Your task to perform on an android device: allow cookies in the chrome app Image 0: 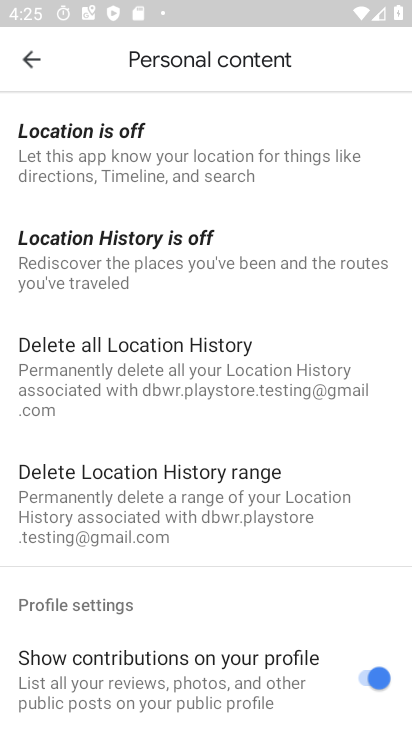
Step 0: press home button
Your task to perform on an android device: allow cookies in the chrome app Image 1: 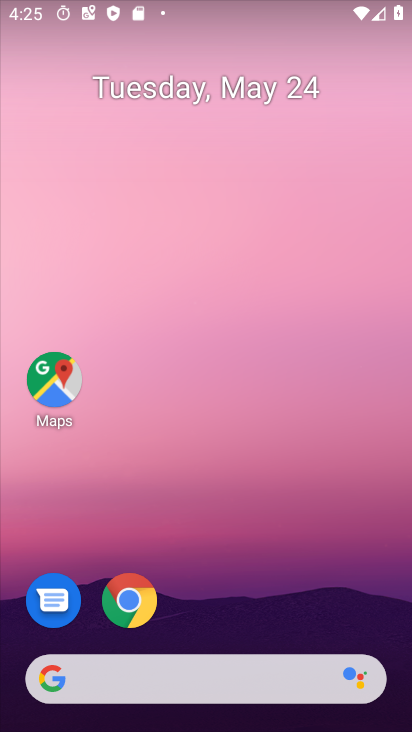
Step 1: click (139, 612)
Your task to perform on an android device: allow cookies in the chrome app Image 2: 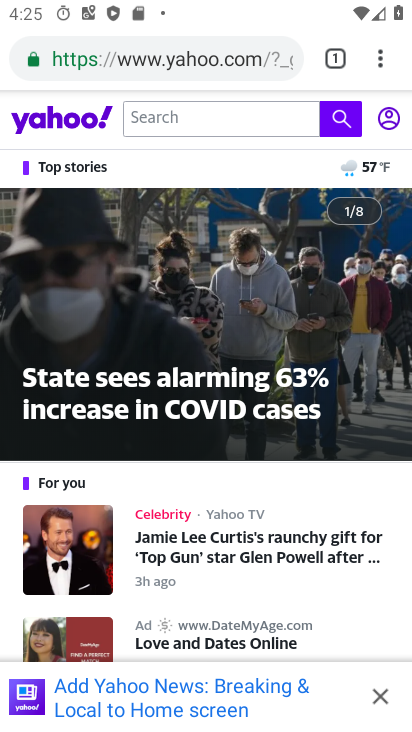
Step 2: click (380, 53)
Your task to perform on an android device: allow cookies in the chrome app Image 3: 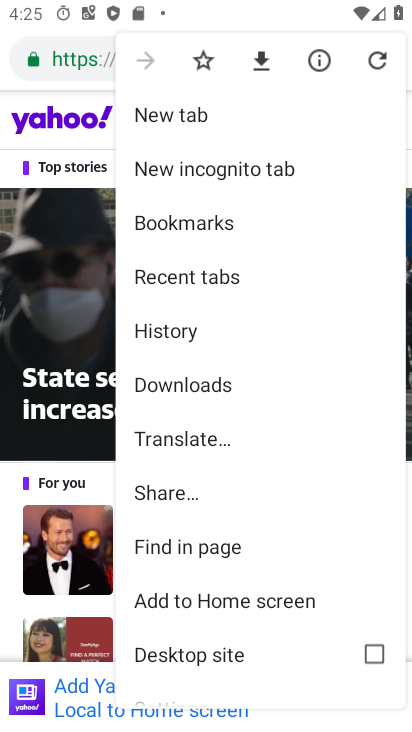
Step 3: drag from (301, 573) to (334, 277)
Your task to perform on an android device: allow cookies in the chrome app Image 4: 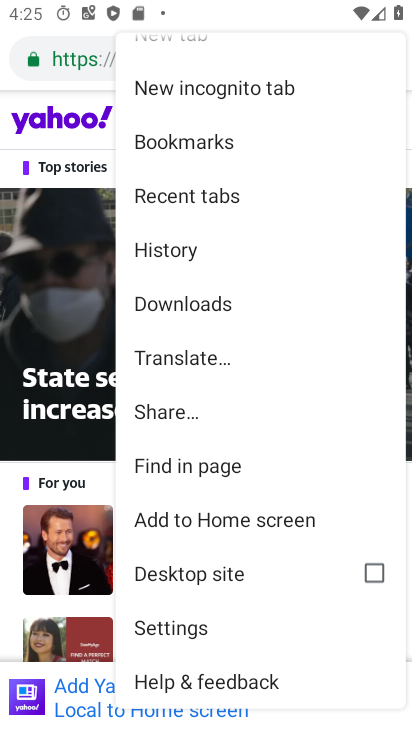
Step 4: click (153, 632)
Your task to perform on an android device: allow cookies in the chrome app Image 5: 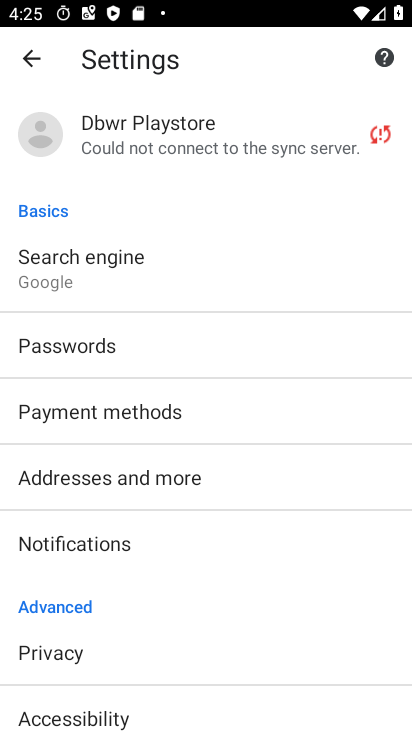
Step 5: drag from (244, 482) to (251, 180)
Your task to perform on an android device: allow cookies in the chrome app Image 6: 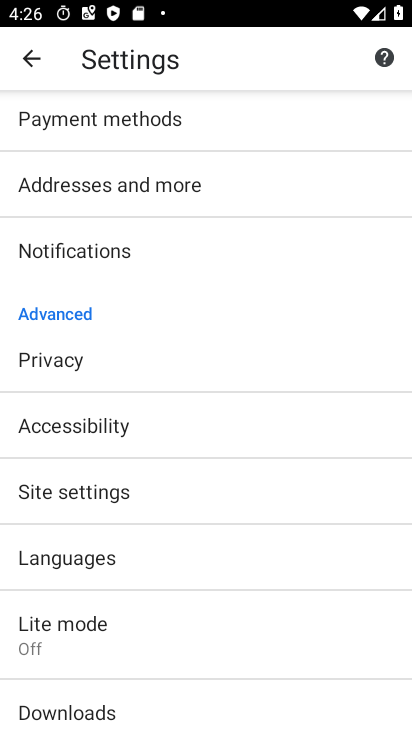
Step 6: click (77, 495)
Your task to perform on an android device: allow cookies in the chrome app Image 7: 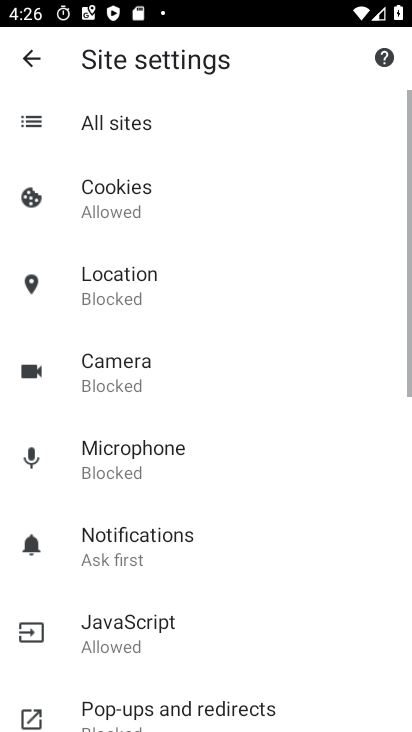
Step 7: click (112, 210)
Your task to perform on an android device: allow cookies in the chrome app Image 8: 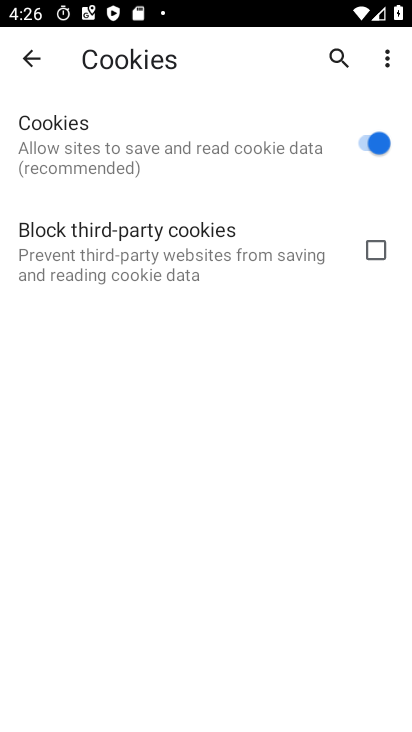
Step 8: task complete